Your task to perform on an android device: toggle show notifications on the lock screen Image 0: 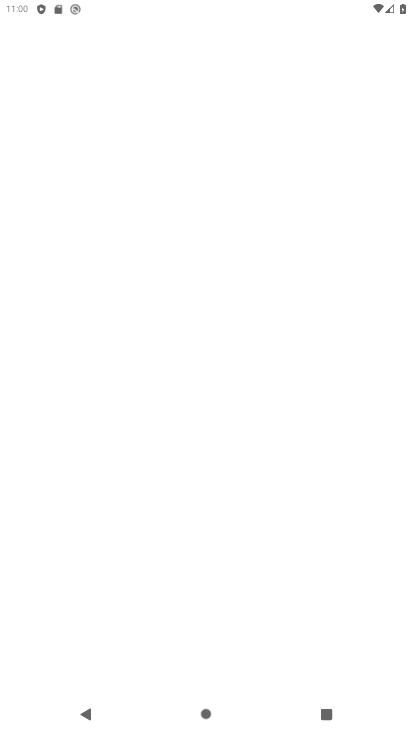
Step 0: press home button
Your task to perform on an android device: toggle show notifications on the lock screen Image 1: 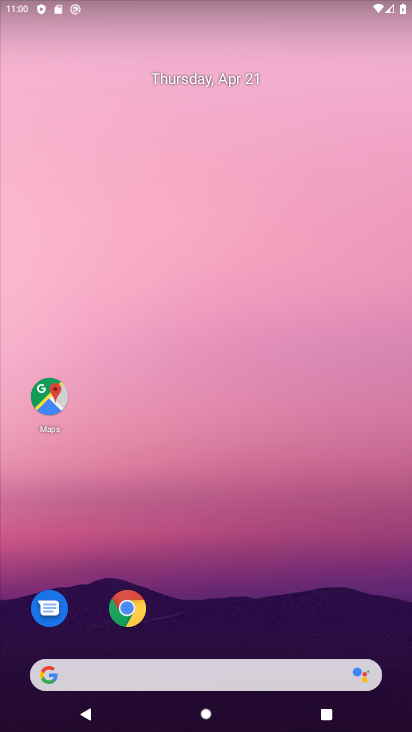
Step 1: drag from (171, 562) to (192, 126)
Your task to perform on an android device: toggle show notifications on the lock screen Image 2: 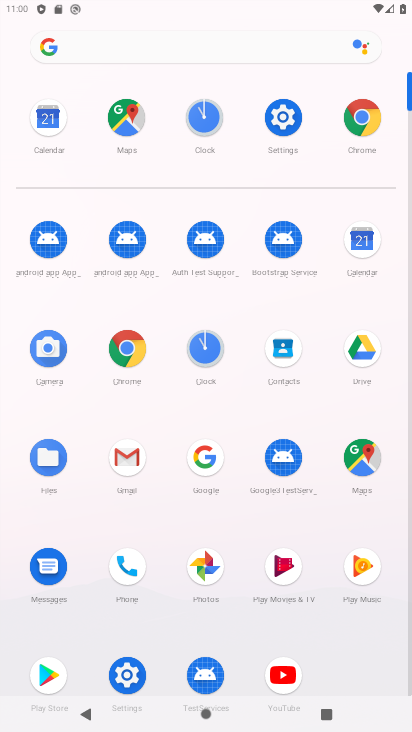
Step 2: click (285, 116)
Your task to perform on an android device: toggle show notifications on the lock screen Image 3: 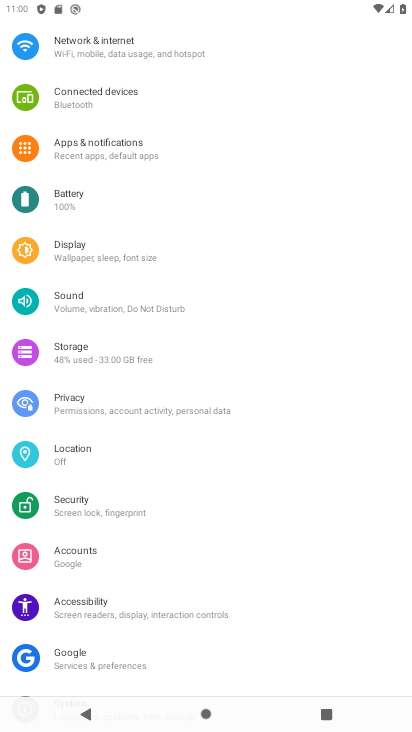
Step 3: click (88, 152)
Your task to perform on an android device: toggle show notifications on the lock screen Image 4: 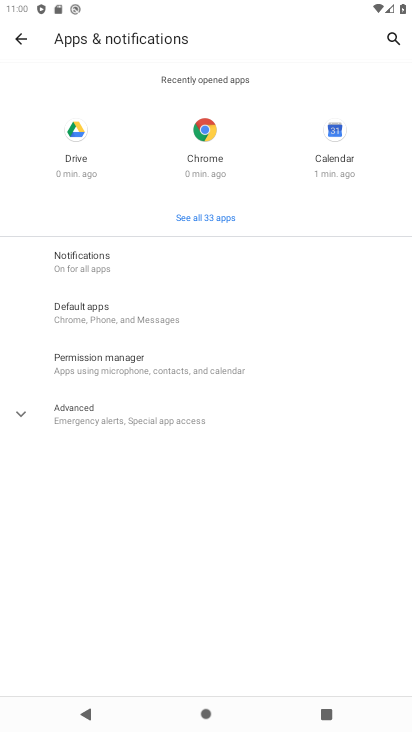
Step 4: click (98, 264)
Your task to perform on an android device: toggle show notifications on the lock screen Image 5: 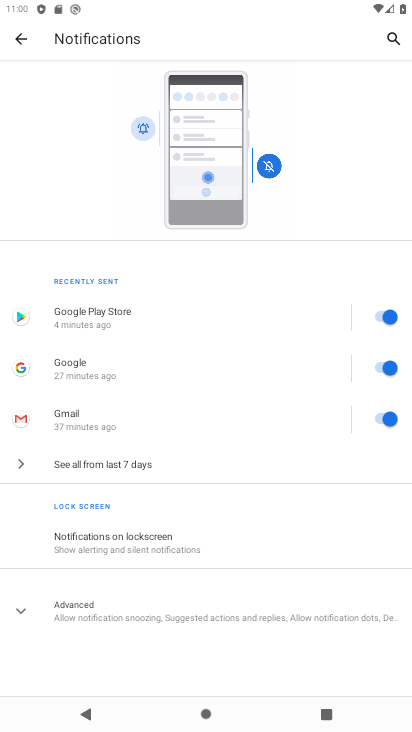
Step 5: click (88, 543)
Your task to perform on an android device: toggle show notifications on the lock screen Image 6: 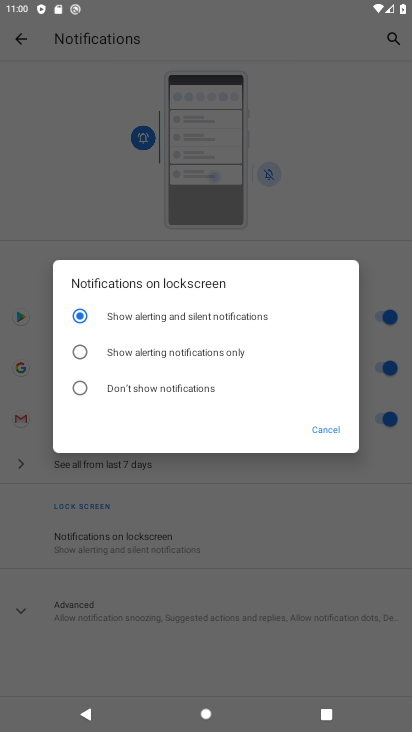
Step 6: task complete